Your task to perform on an android device: turn on location history Image 0: 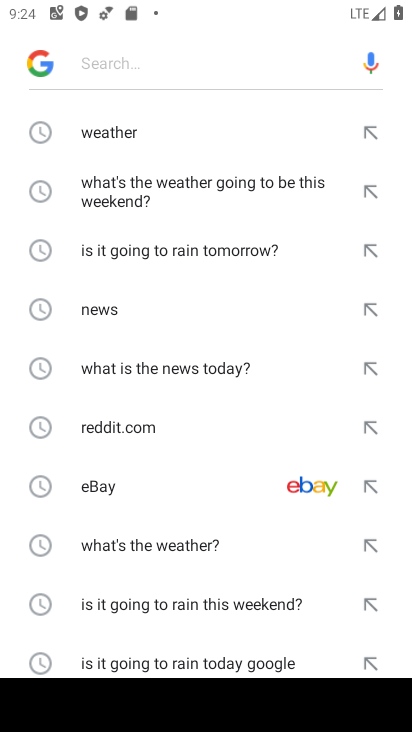
Step 0: press home button
Your task to perform on an android device: turn on location history Image 1: 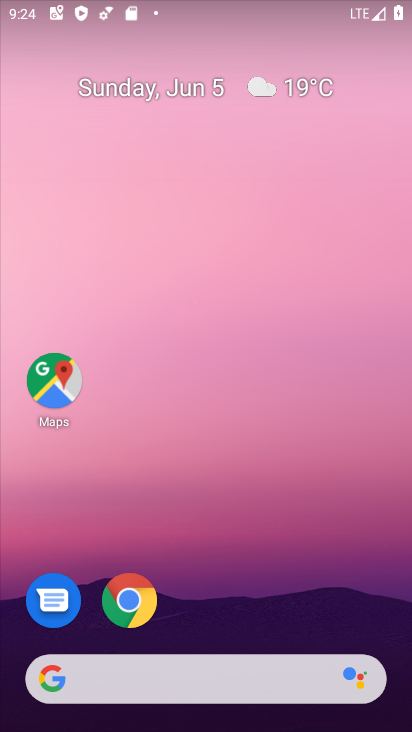
Step 1: drag from (258, 617) to (218, 258)
Your task to perform on an android device: turn on location history Image 2: 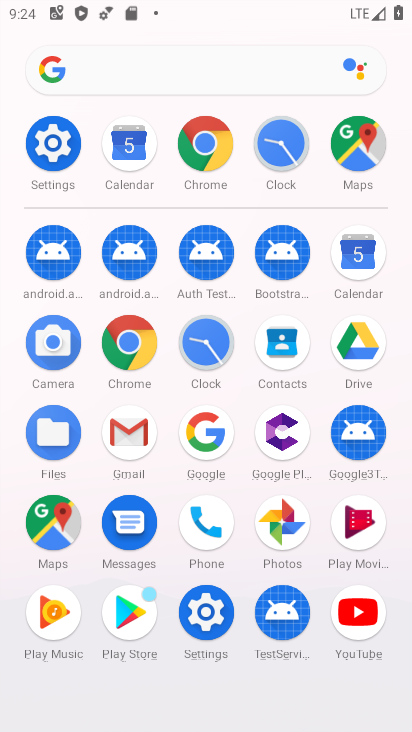
Step 2: click (43, 156)
Your task to perform on an android device: turn on location history Image 3: 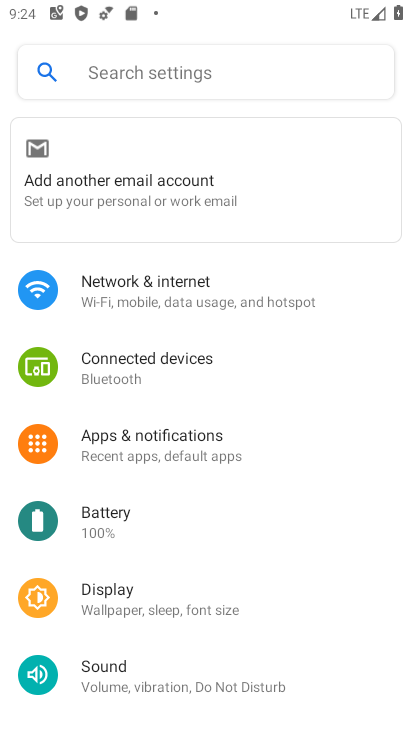
Step 3: press home button
Your task to perform on an android device: turn on location history Image 4: 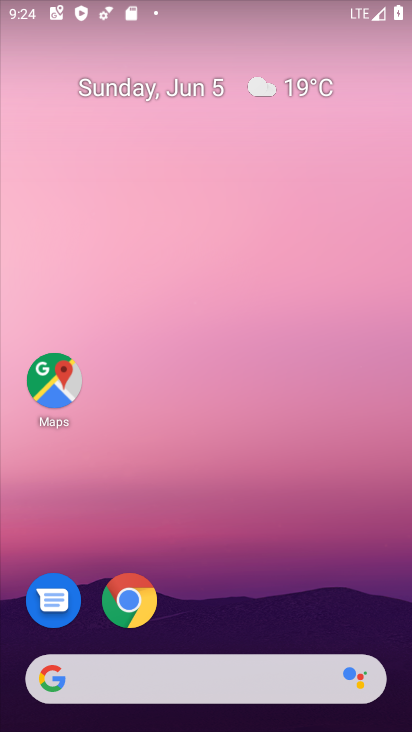
Step 4: drag from (201, 629) to (180, 261)
Your task to perform on an android device: turn on location history Image 5: 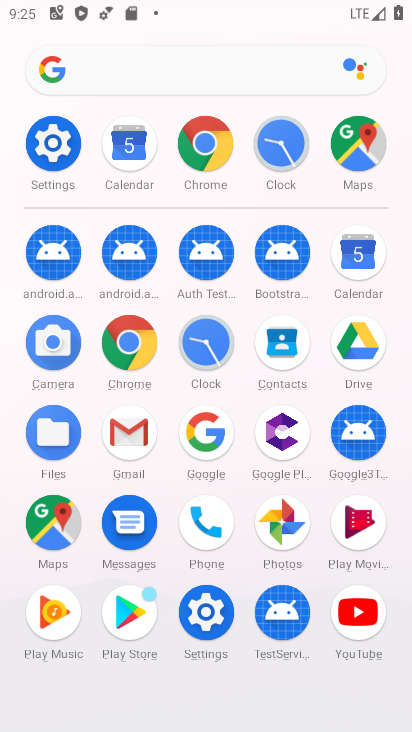
Step 5: click (369, 160)
Your task to perform on an android device: turn on location history Image 6: 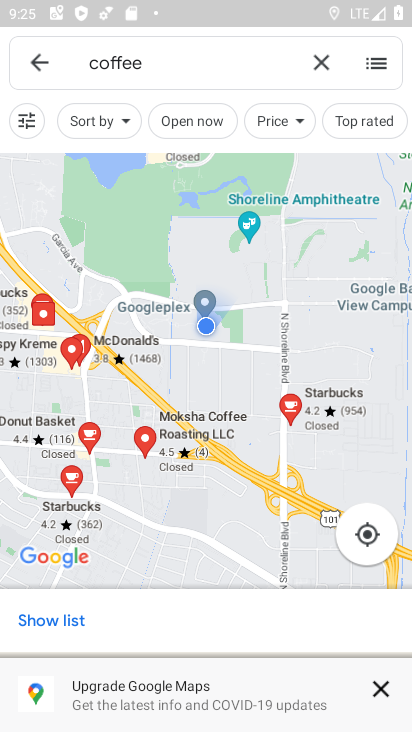
Step 6: click (40, 71)
Your task to perform on an android device: turn on location history Image 7: 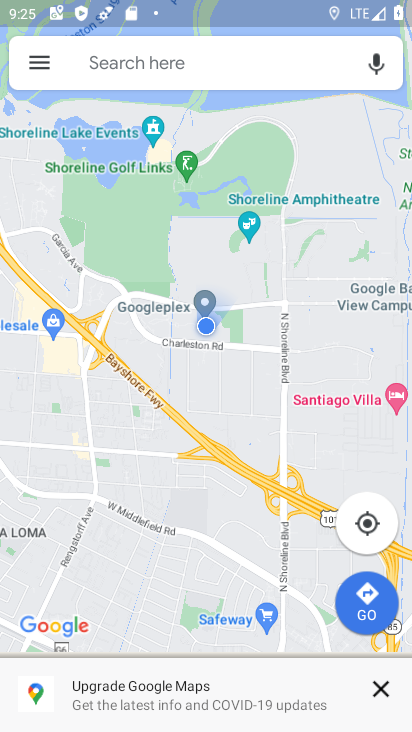
Step 7: click (40, 71)
Your task to perform on an android device: turn on location history Image 8: 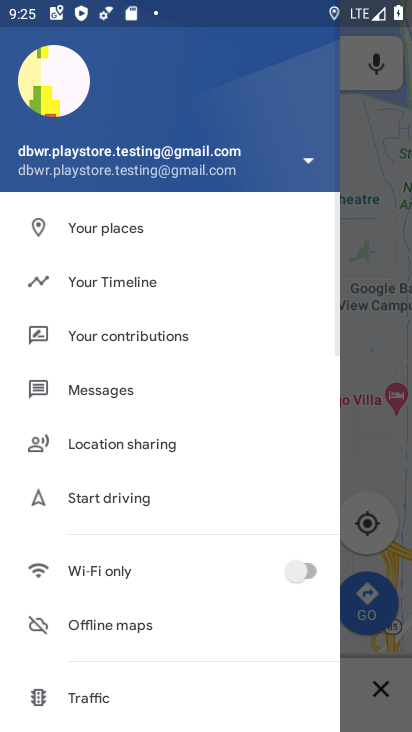
Step 8: click (119, 287)
Your task to perform on an android device: turn on location history Image 9: 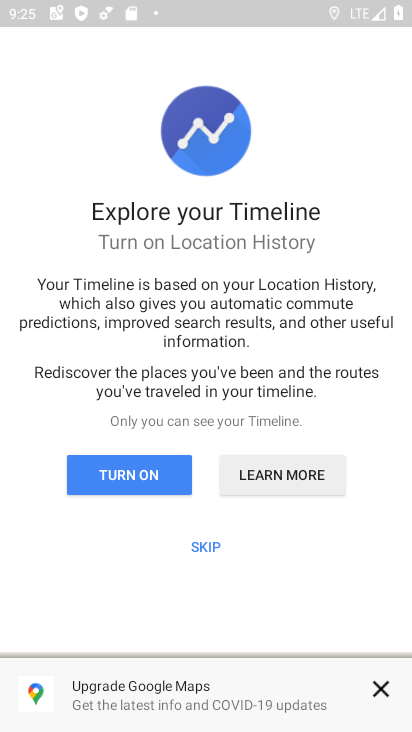
Step 9: click (168, 480)
Your task to perform on an android device: turn on location history Image 10: 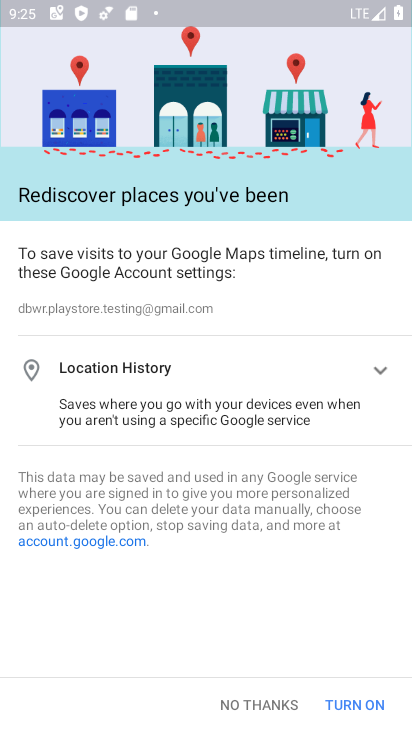
Step 10: click (370, 714)
Your task to perform on an android device: turn on location history Image 11: 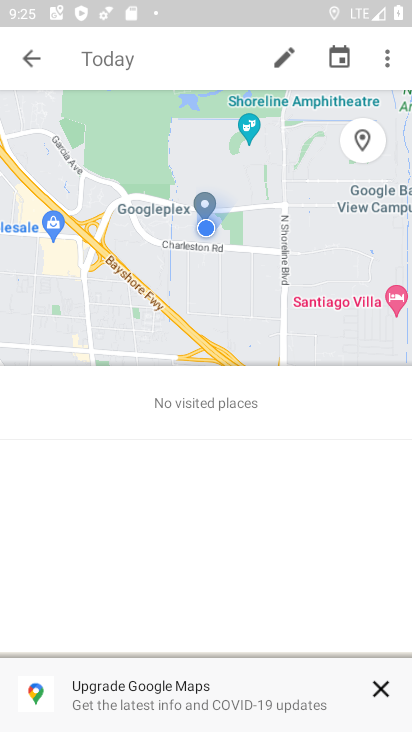
Step 11: task complete